Your task to perform on an android device: set default search engine in the chrome app Image 0: 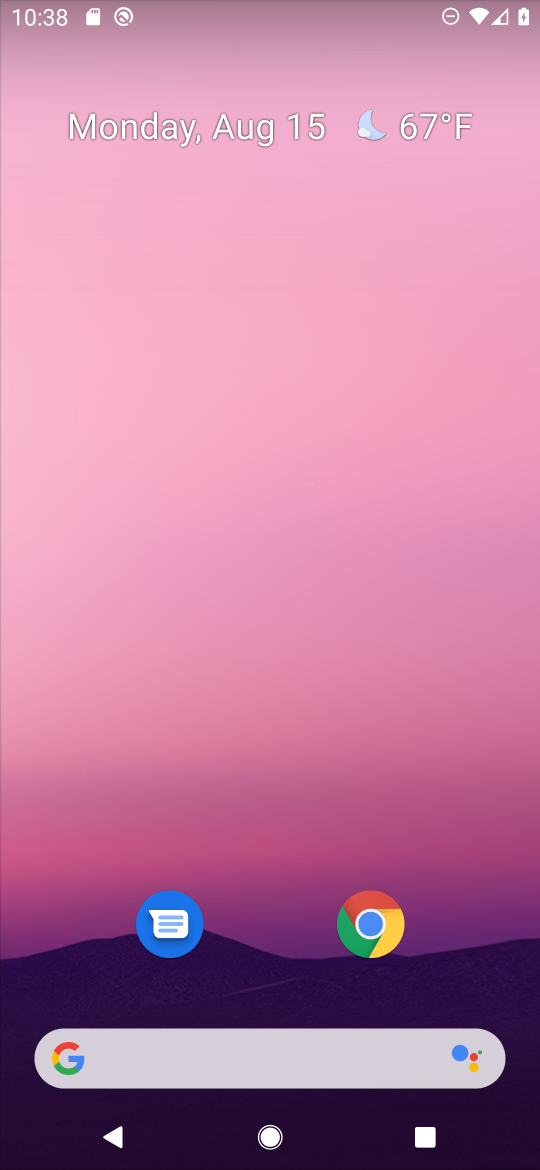
Step 0: click (371, 924)
Your task to perform on an android device: set default search engine in the chrome app Image 1: 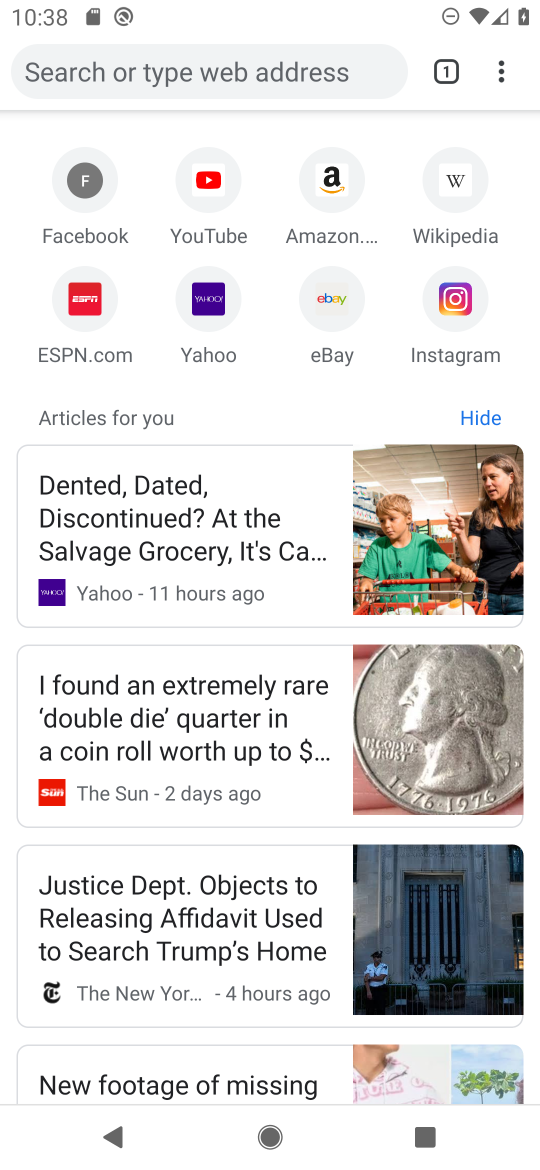
Step 1: click (495, 77)
Your task to perform on an android device: set default search engine in the chrome app Image 2: 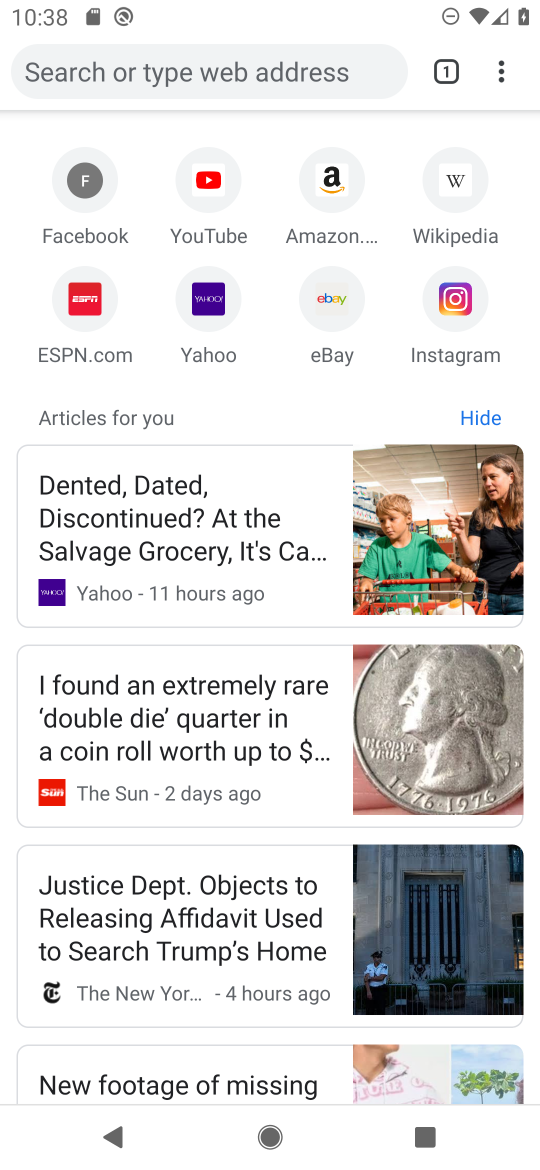
Step 2: click (497, 80)
Your task to perform on an android device: set default search engine in the chrome app Image 3: 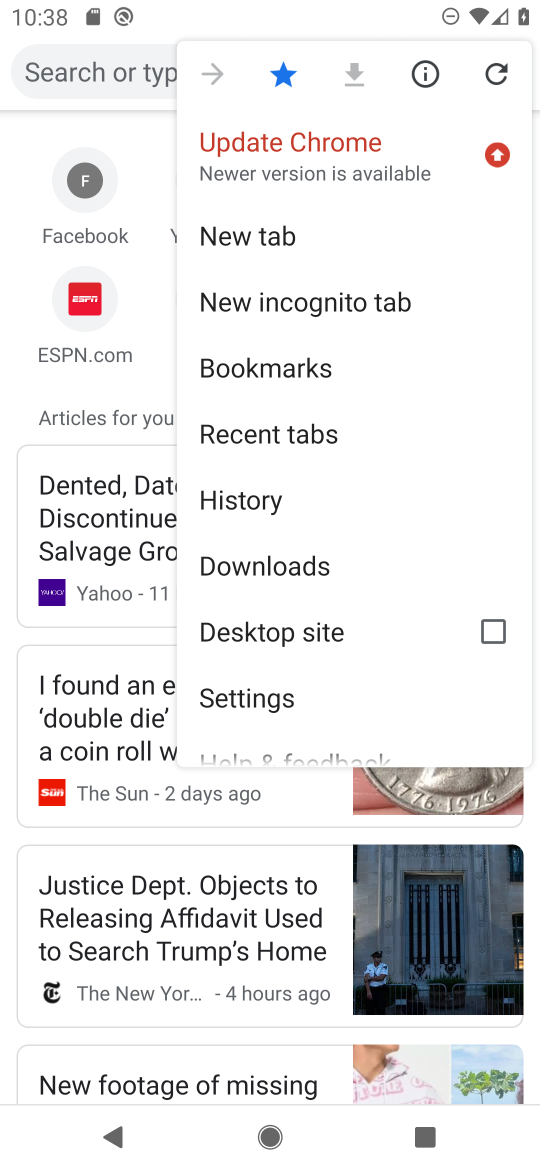
Step 3: click (249, 704)
Your task to perform on an android device: set default search engine in the chrome app Image 4: 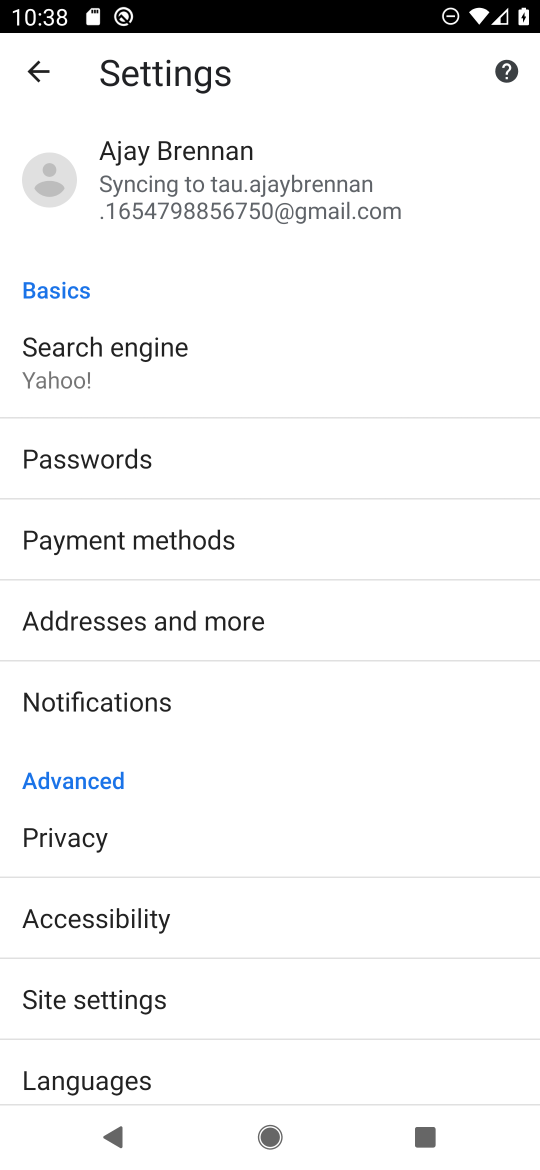
Step 4: click (73, 356)
Your task to perform on an android device: set default search engine in the chrome app Image 5: 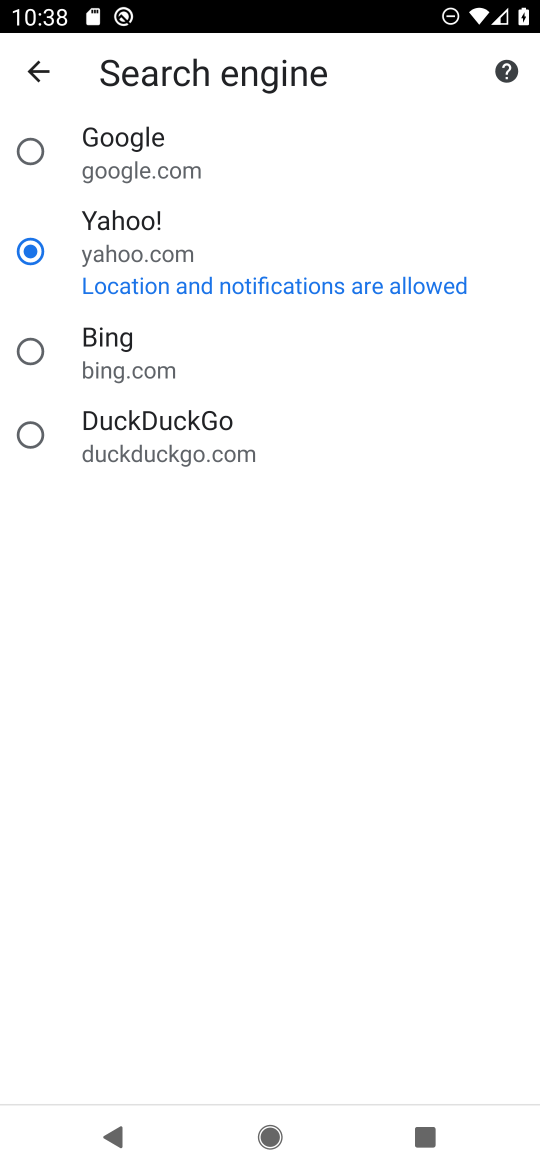
Step 5: click (31, 155)
Your task to perform on an android device: set default search engine in the chrome app Image 6: 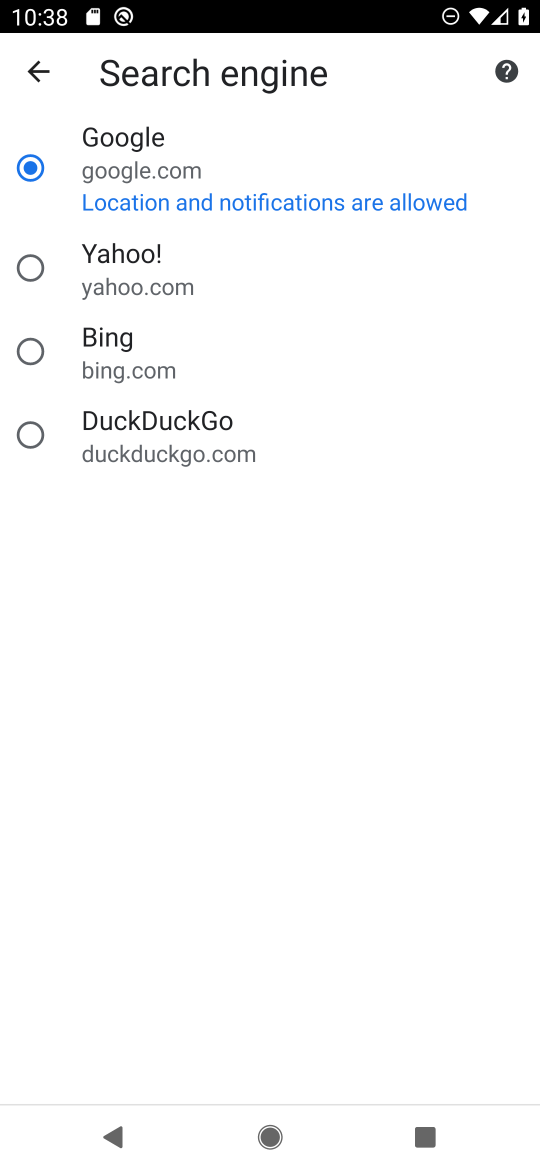
Step 6: task complete